Your task to perform on an android device: turn on airplane mode Image 0: 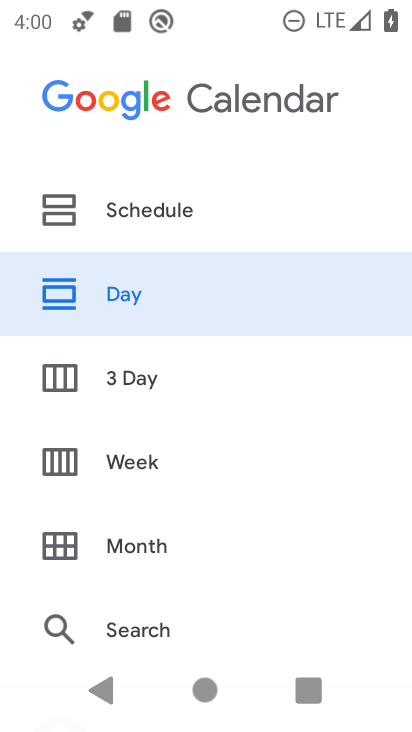
Step 0: press home button
Your task to perform on an android device: turn on airplane mode Image 1: 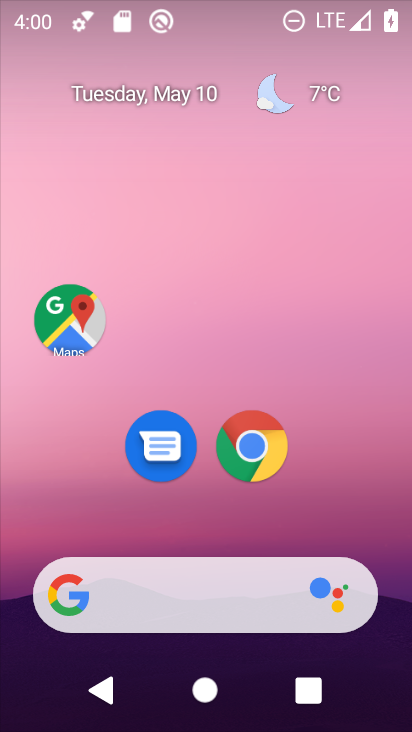
Step 1: drag from (298, 517) to (187, 47)
Your task to perform on an android device: turn on airplane mode Image 2: 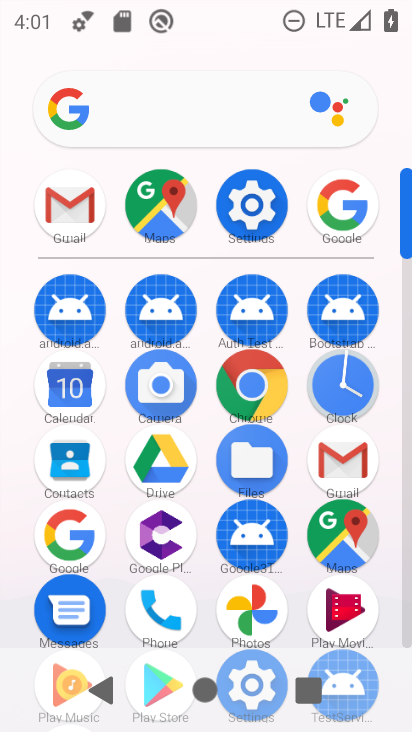
Step 2: click (240, 180)
Your task to perform on an android device: turn on airplane mode Image 3: 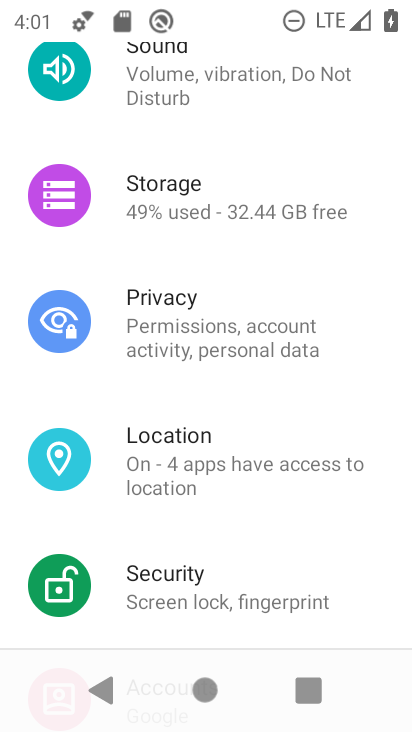
Step 3: drag from (286, 142) to (235, 640)
Your task to perform on an android device: turn on airplane mode Image 4: 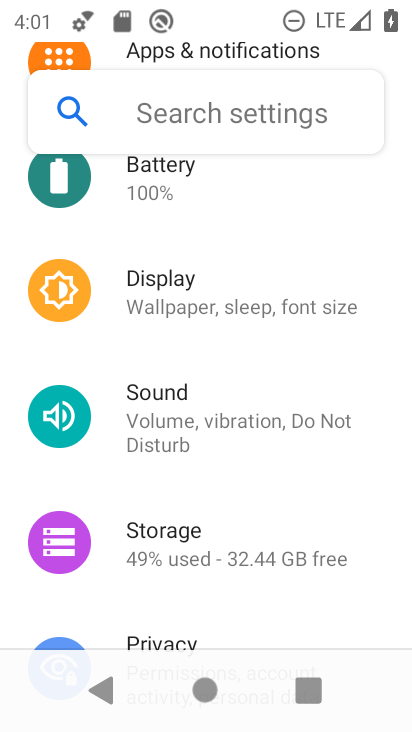
Step 4: drag from (263, 246) to (267, 714)
Your task to perform on an android device: turn on airplane mode Image 5: 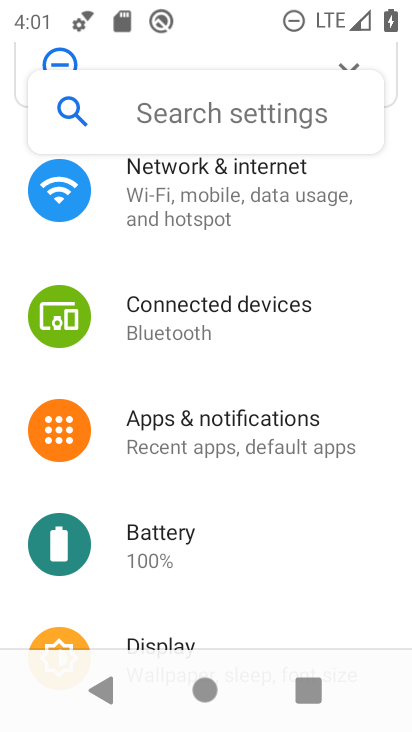
Step 5: drag from (255, 195) to (215, 705)
Your task to perform on an android device: turn on airplane mode Image 6: 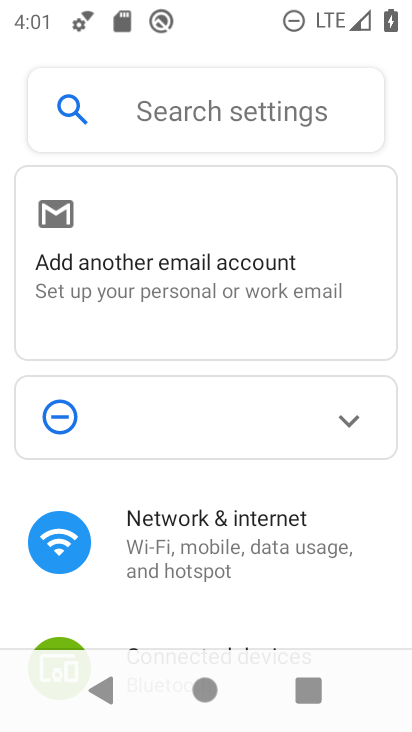
Step 6: click (219, 522)
Your task to perform on an android device: turn on airplane mode Image 7: 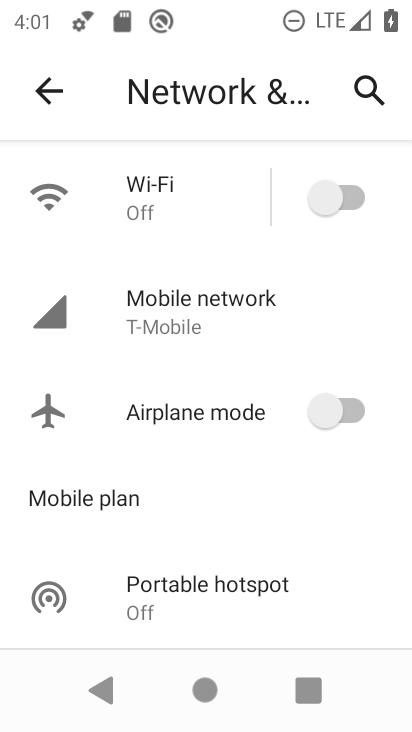
Step 7: click (341, 410)
Your task to perform on an android device: turn on airplane mode Image 8: 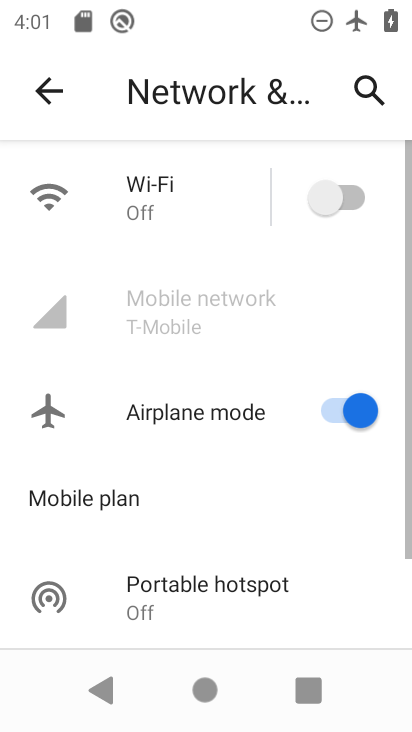
Step 8: task complete